Your task to perform on an android device: uninstall "Chime – Mobile Banking" Image 0: 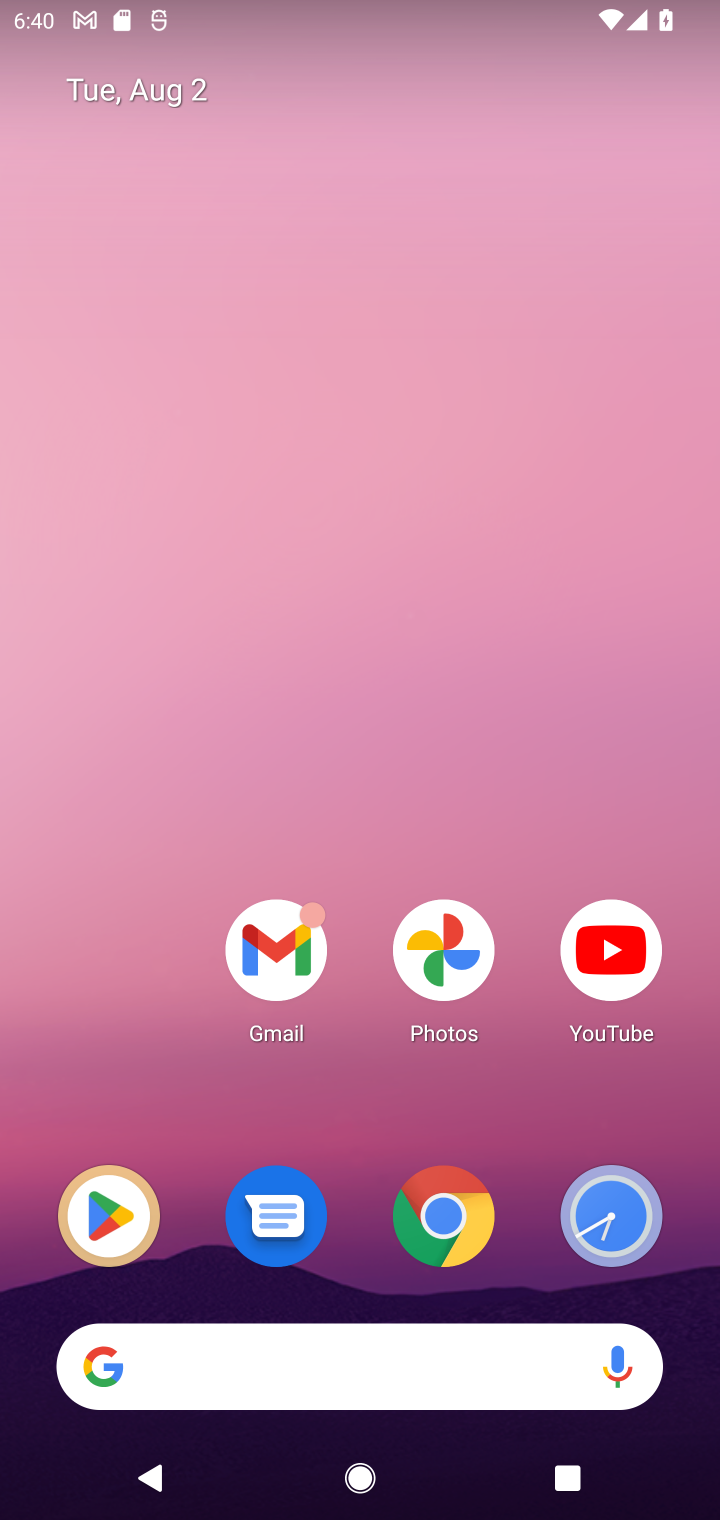
Step 0: press home button
Your task to perform on an android device: uninstall "Chime – Mobile Banking" Image 1: 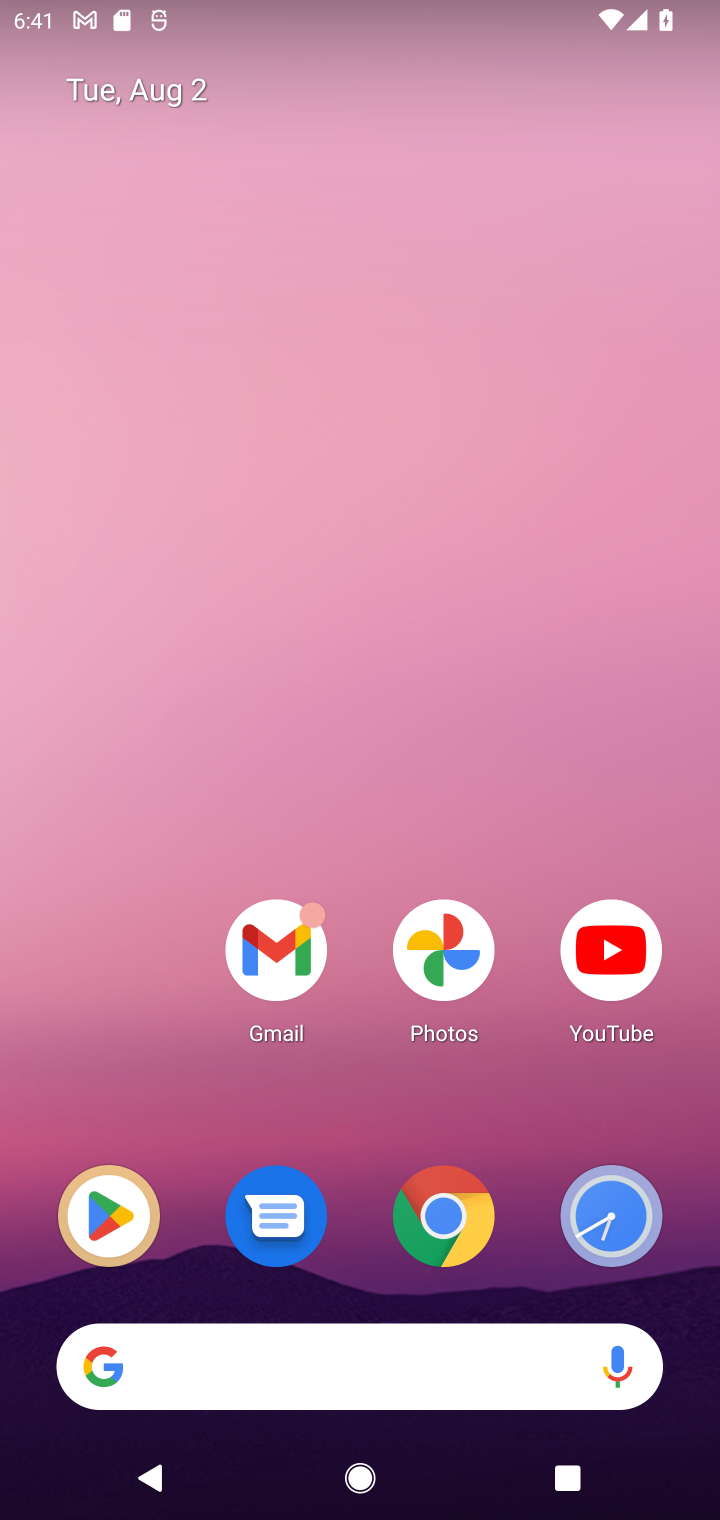
Step 1: click (107, 1205)
Your task to perform on an android device: uninstall "Chime – Mobile Banking" Image 2: 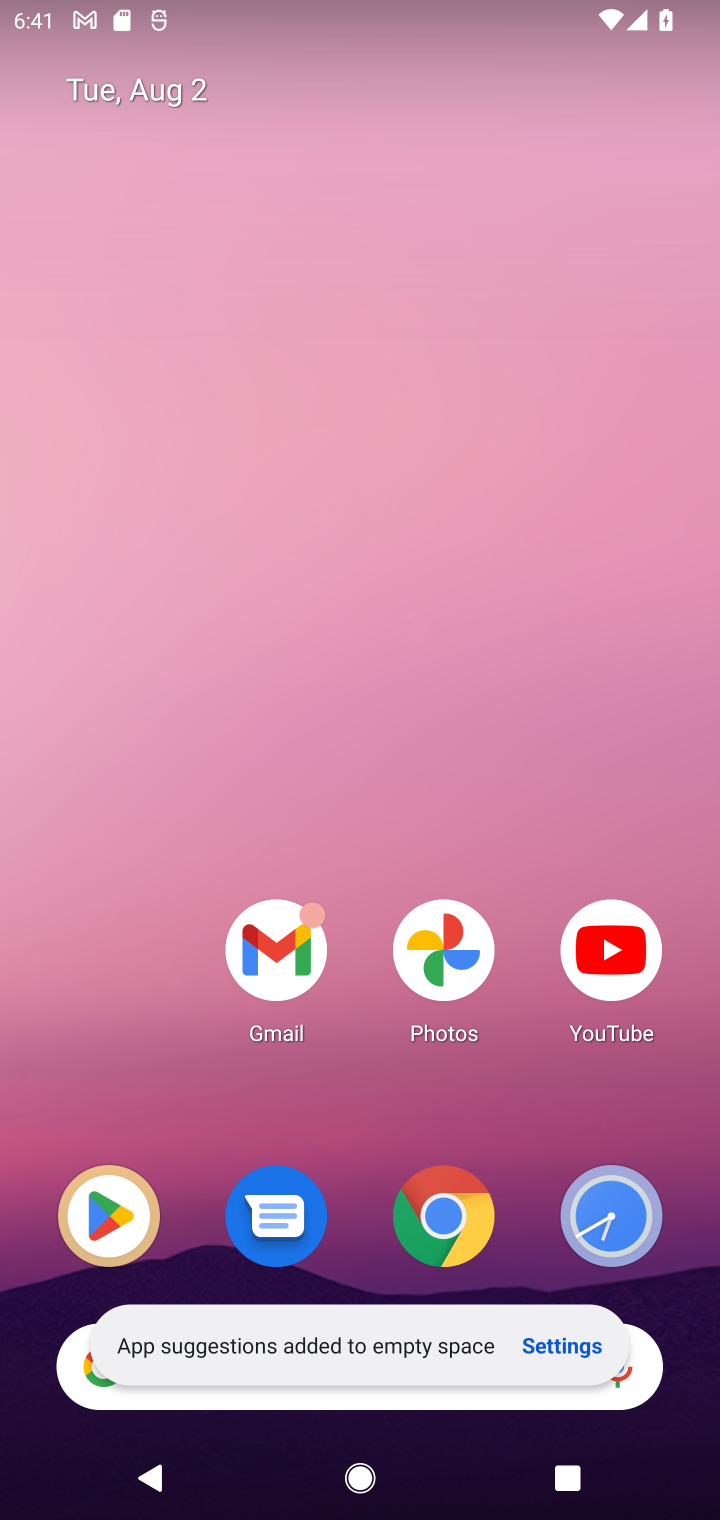
Step 2: click (107, 1205)
Your task to perform on an android device: uninstall "Chime – Mobile Banking" Image 3: 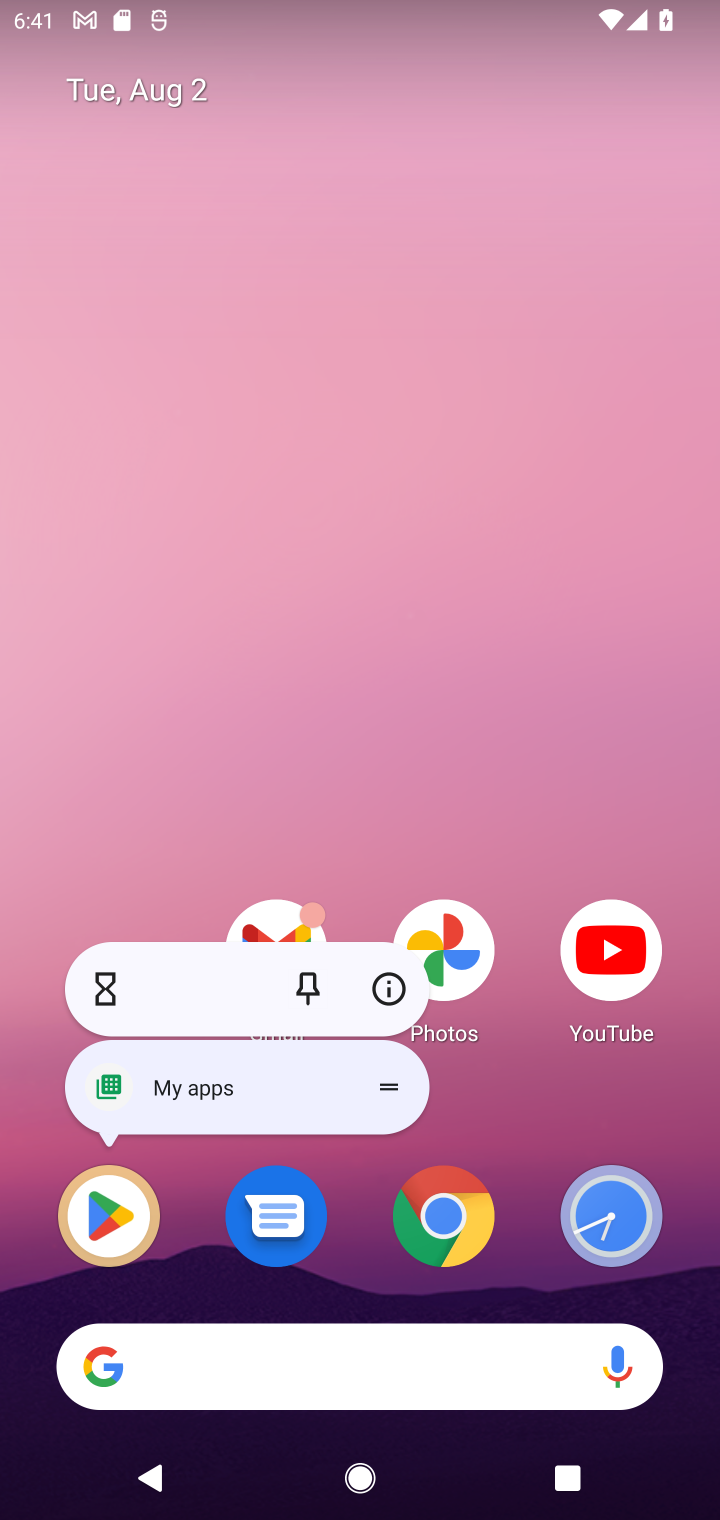
Step 3: click (107, 1205)
Your task to perform on an android device: uninstall "Chime – Mobile Banking" Image 4: 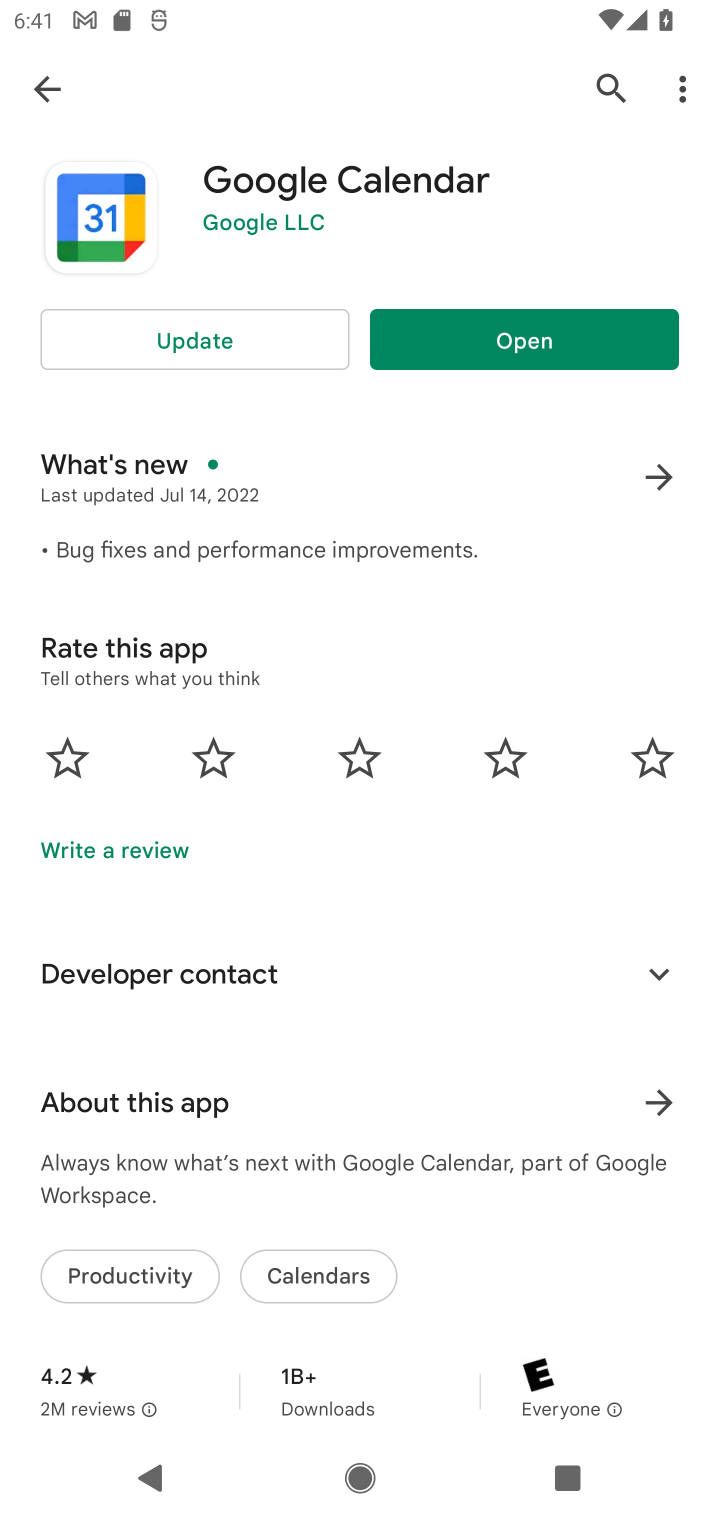
Step 4: click (608, 84)
Your task to perform on an android device: uninstall "Chime – Mobile Banking" Image 5: 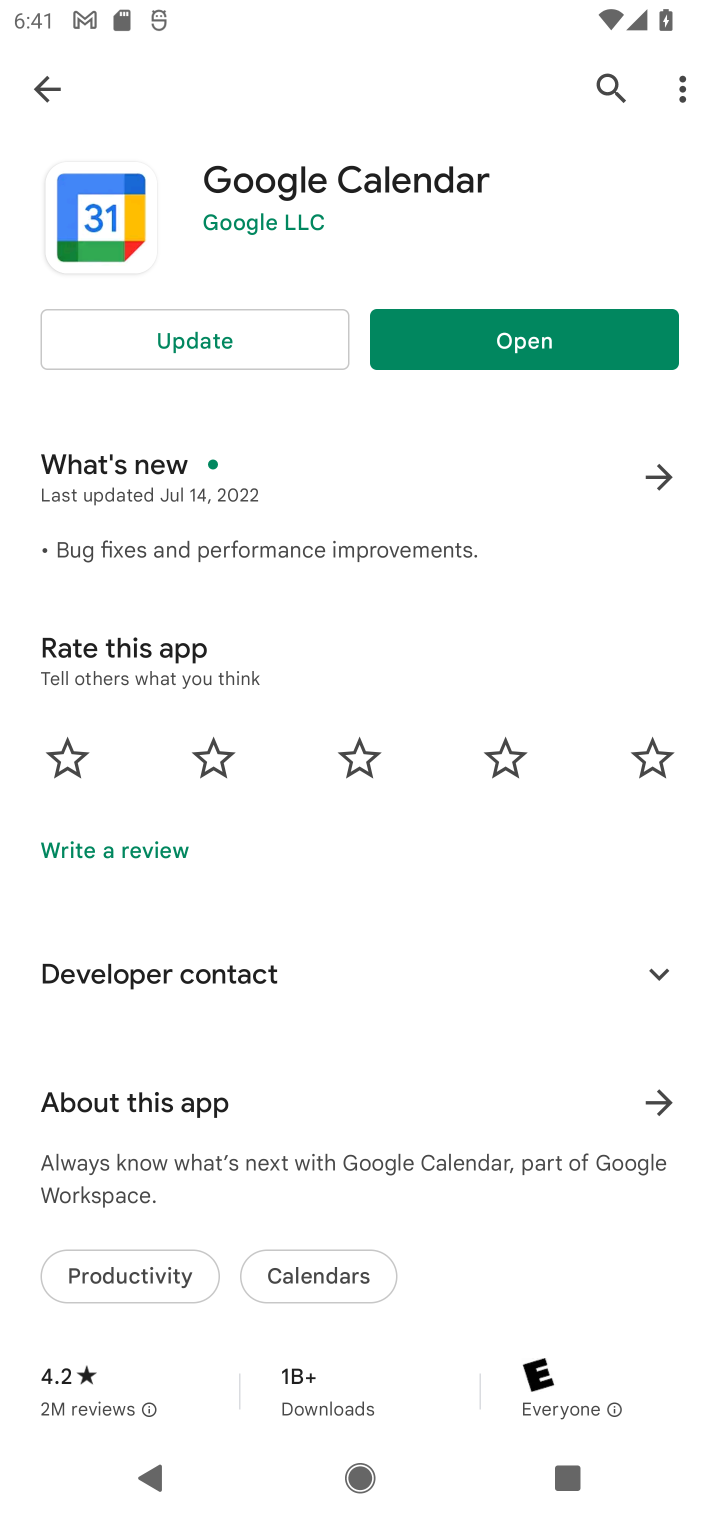
Step 5: click (608, 84)
Your task to perform on an android device: uninstall "Chime – Mobile Banking" Image 6: 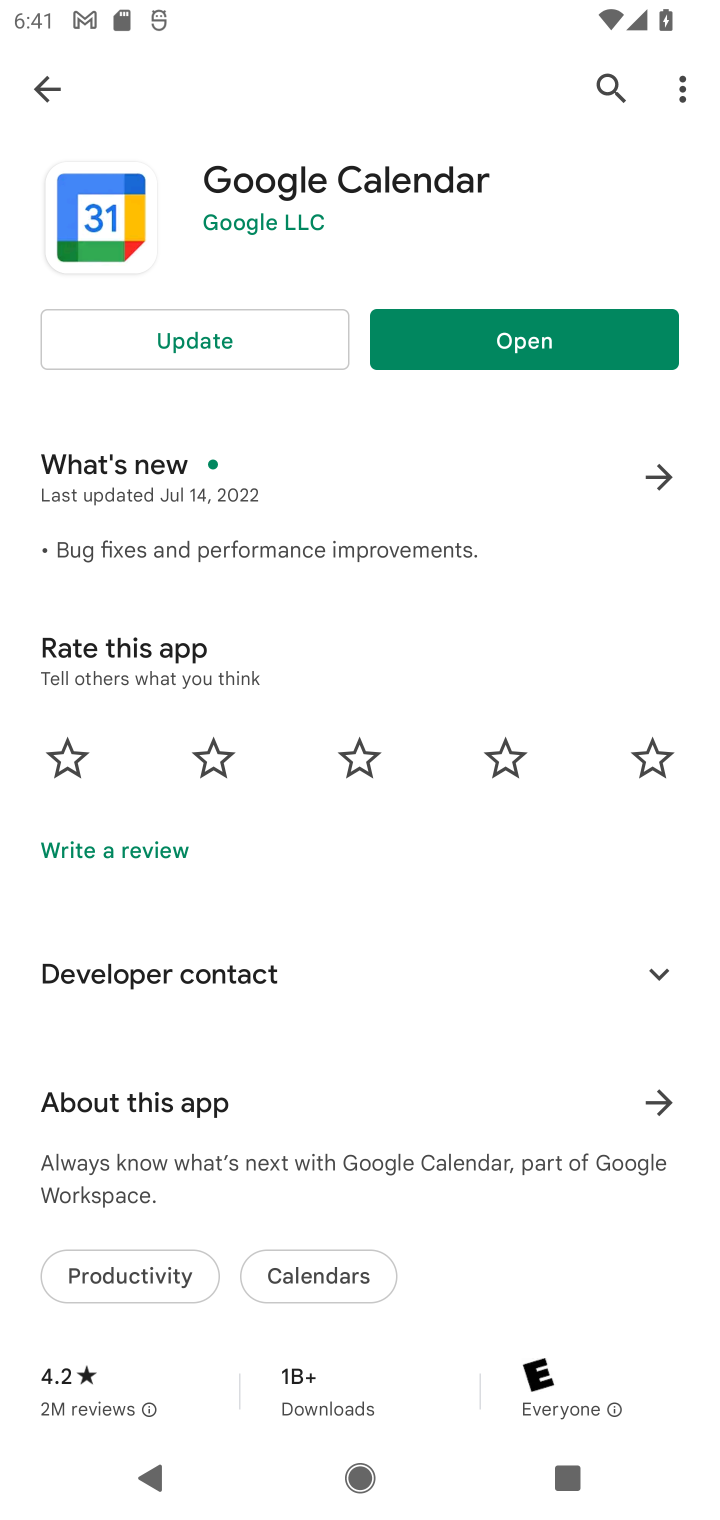
Step 6: click (40, 79)
Your task to perform on an android device: uninstall "Chime – Mobile Banking" Image 7: 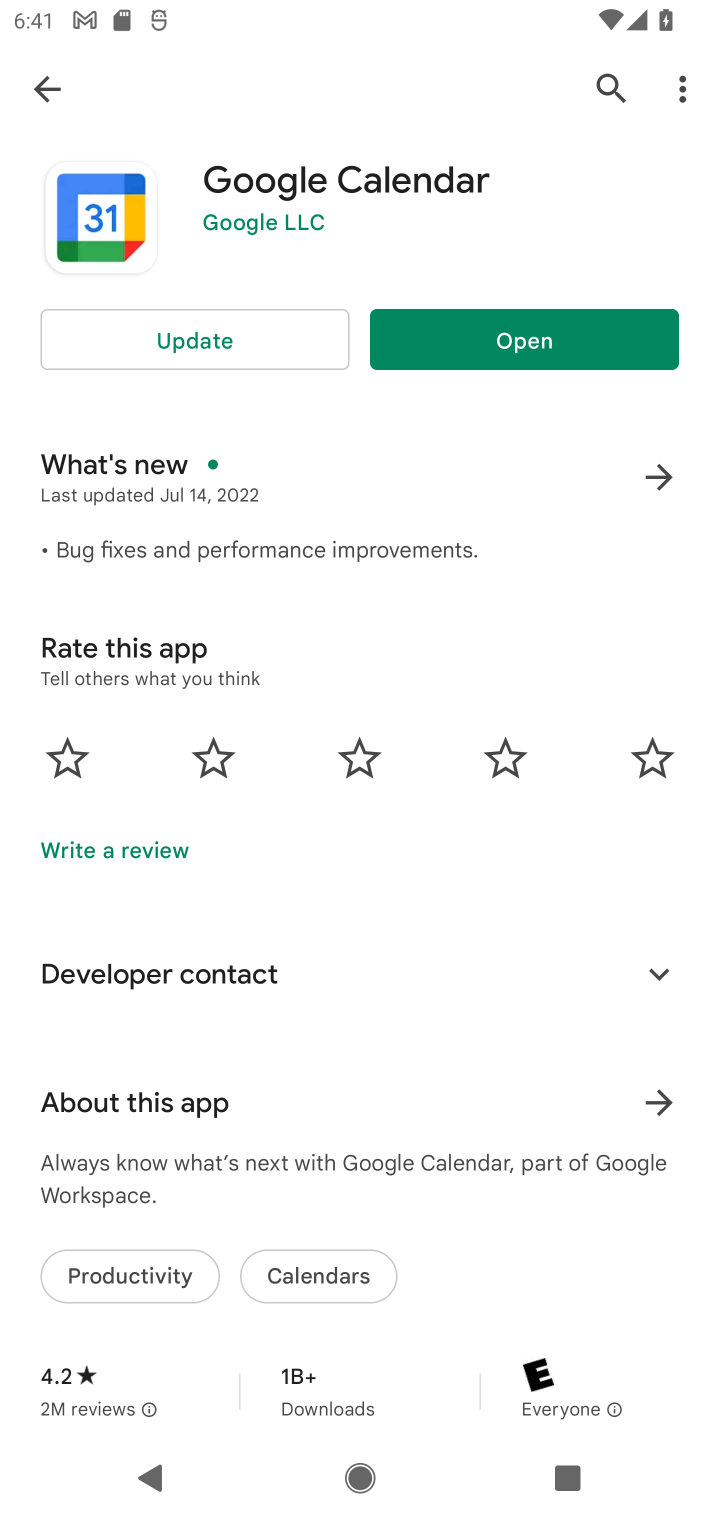
Step 7: click (45, 89)
Your task to perform on an android device: uninstall "Chime – Mobile Banking" Image 8: 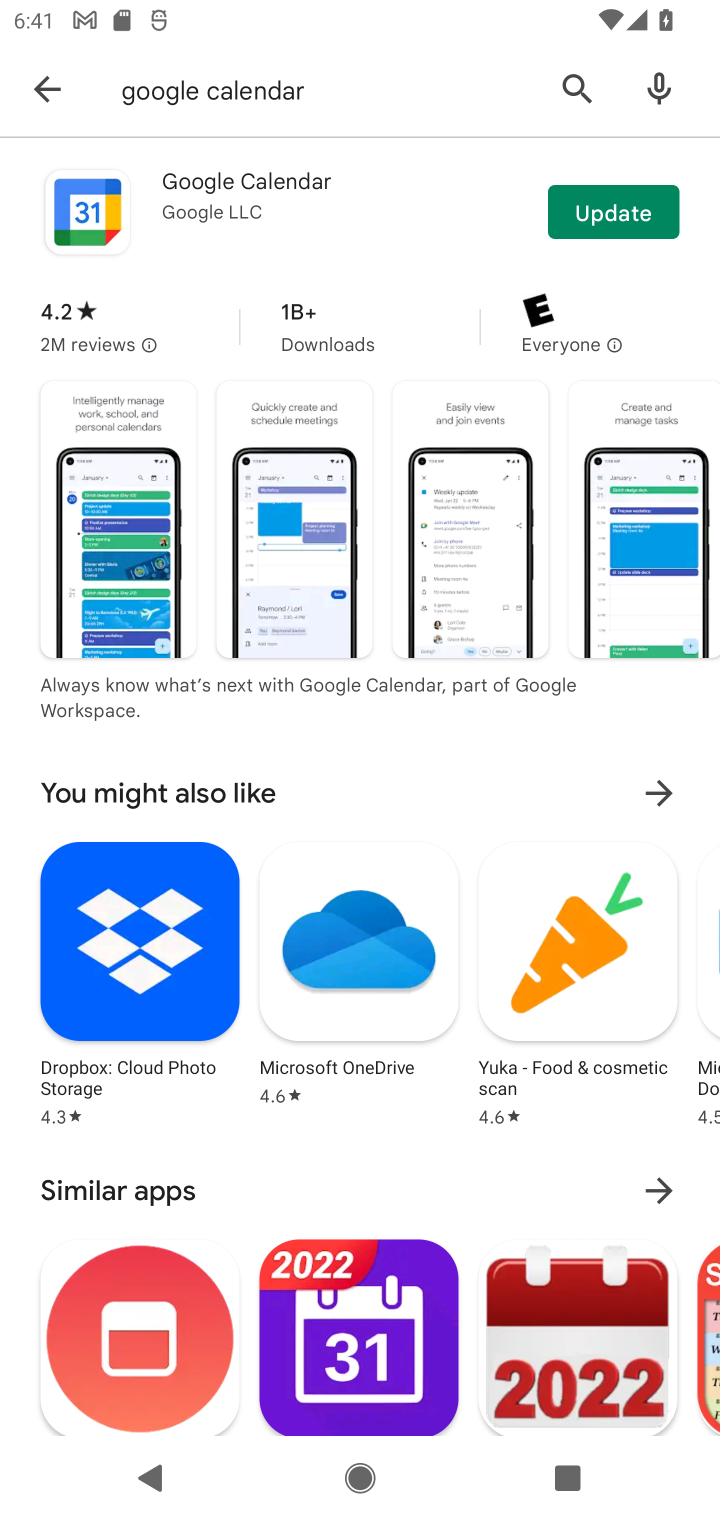
Step 8: click (571, 81)
Your task to perform on an android device: uninstall "Chime – Mobile Banking" Image 9: 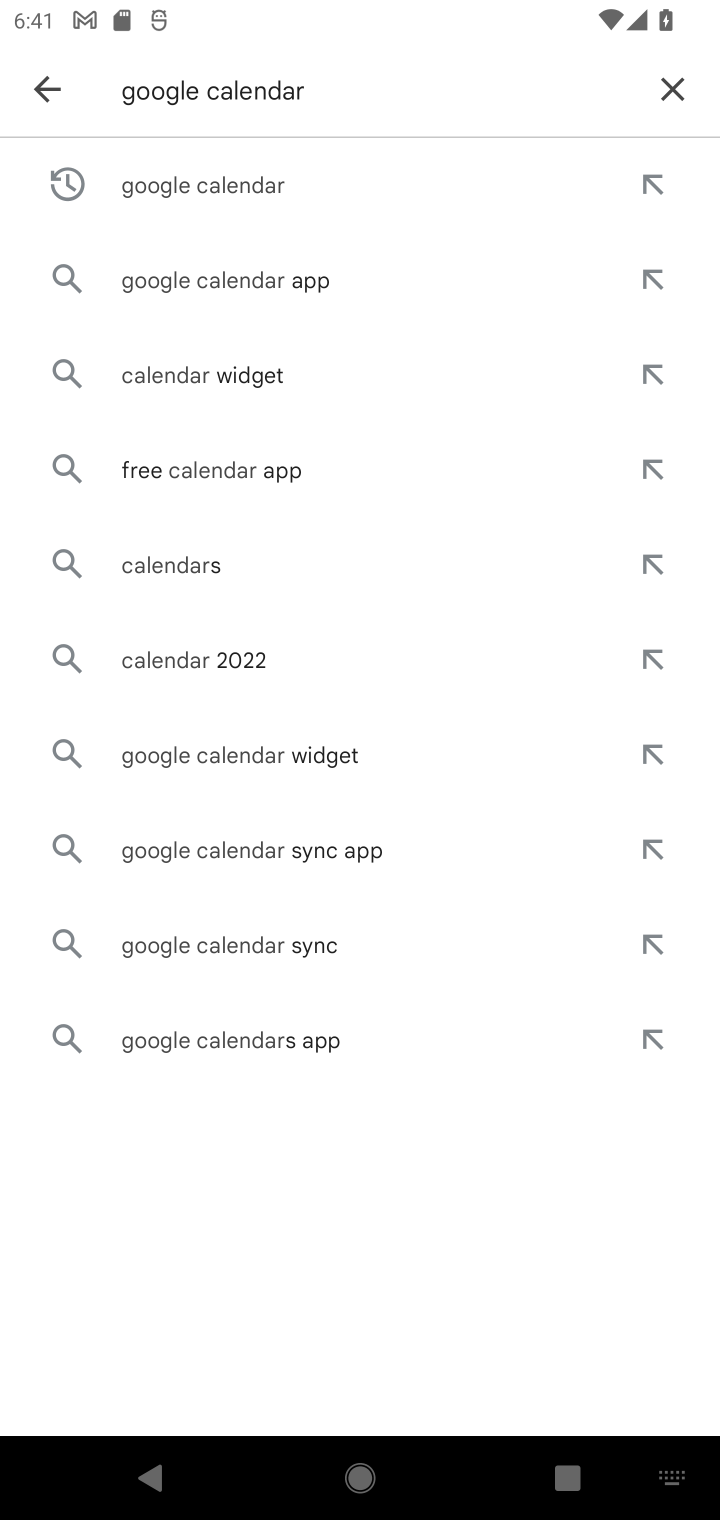
Step 9: click (668, 78)
Your task to perform on an android device: uninstall "Chime – Mobile Banking" Image 10: 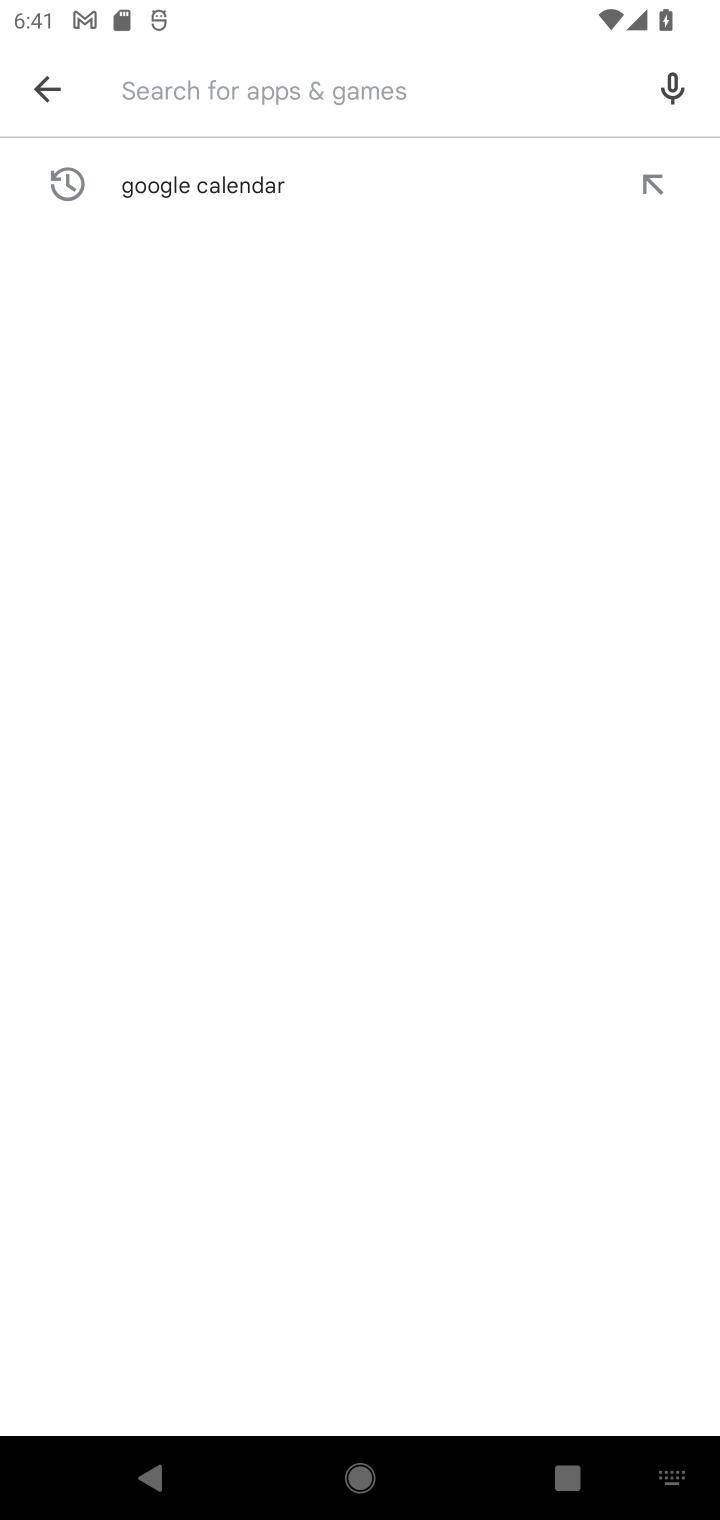
Step 10: type "Chime Mobile Banking"
Your task to perform on an android device: uninstall "Chime – Mobile Banking" Image 11: 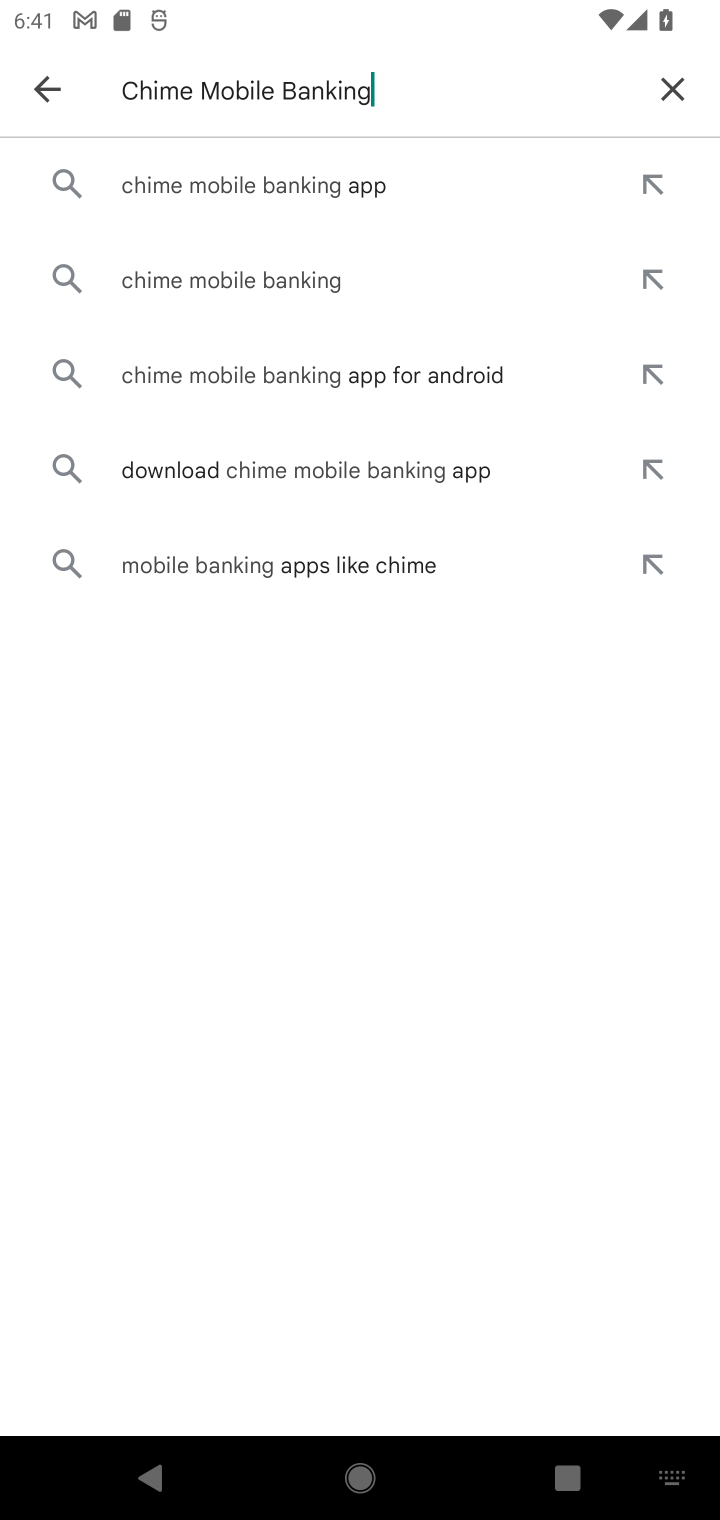
Step 11: click (264, 200)
Your task to perform on an android device: uninstall "Chime – Mobile Banking" Image 12: 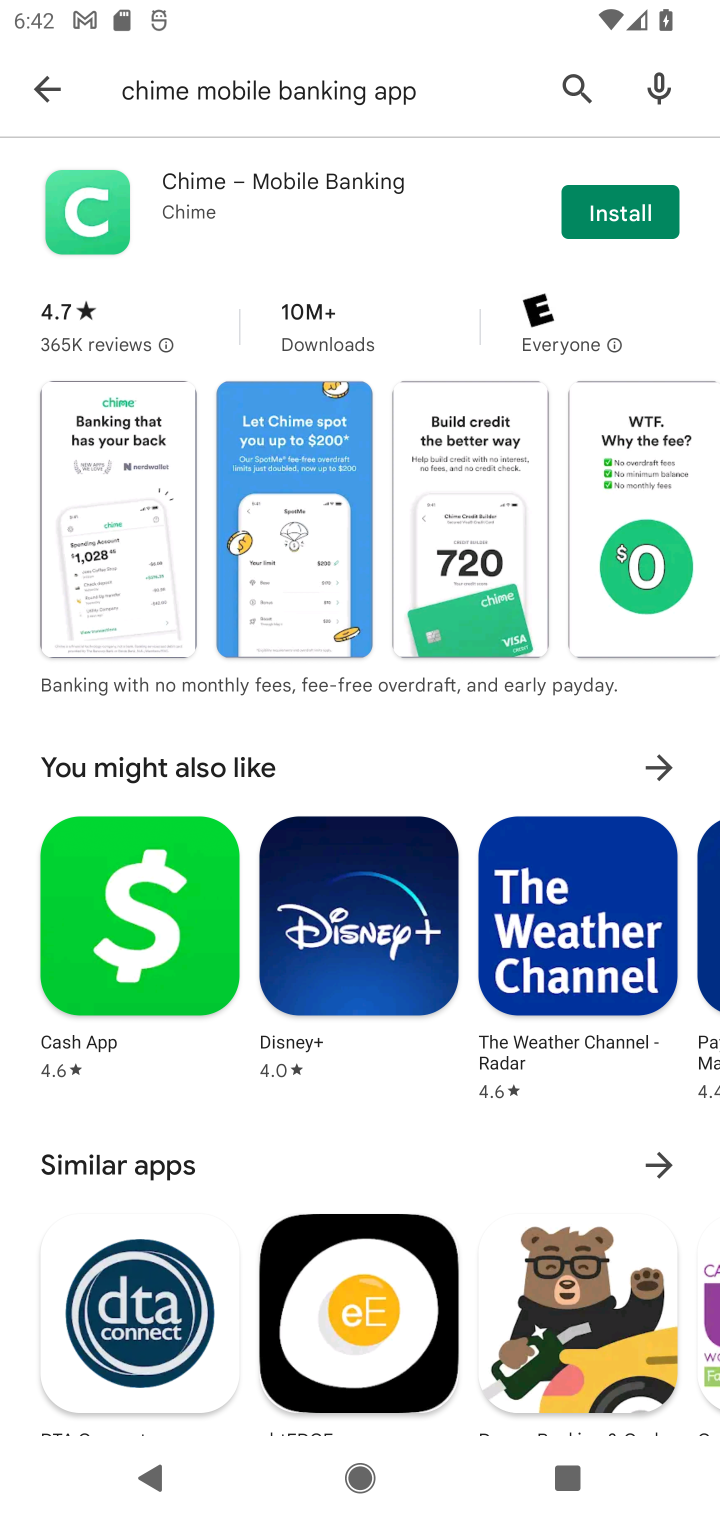
Step 12: task complete